Your task to perform on an android device: change the clock style Image 0: 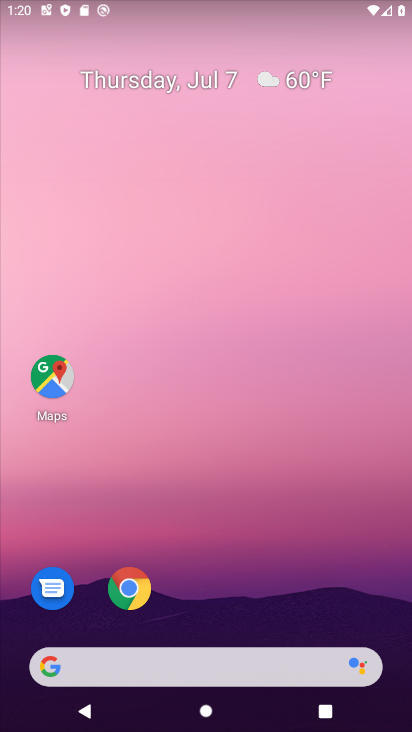
Step 0: drag from (264, 623) to (276, 182)
Your task to perform on an android device: change the clock style Image 1: 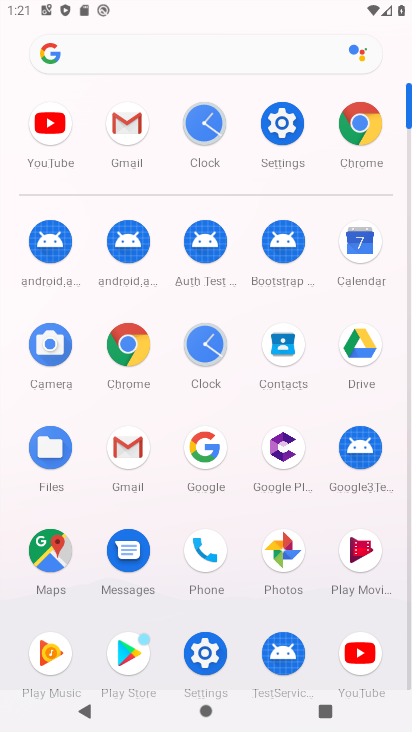
Step 1: click (191, 336)
Your task to perform on an android device: change the clock style Image 2: 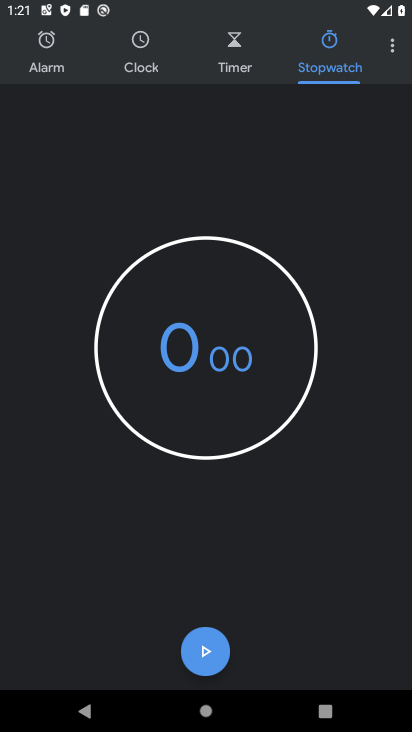
Step 2: click (393, 33)
Your task to perform on an android device: change the clock style Image 3: 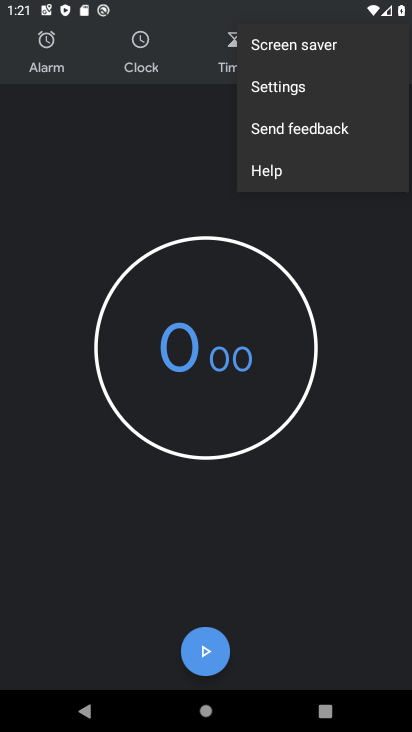
Step 3: click (311, 83)
Your task to perform on an android device: change the clock style Image 4: 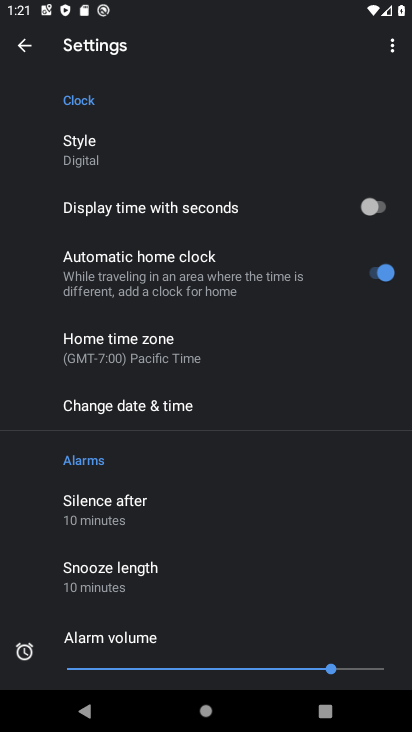
Step 4: click (97, 147)
Your task to perform on an android device: change the clock style Image 5: 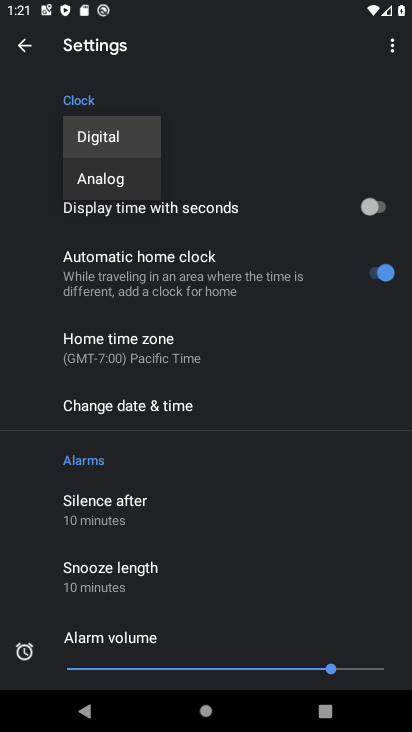
Step 5: click (132, 165)
Your task to perform on an android device: change the clock style Image 6: 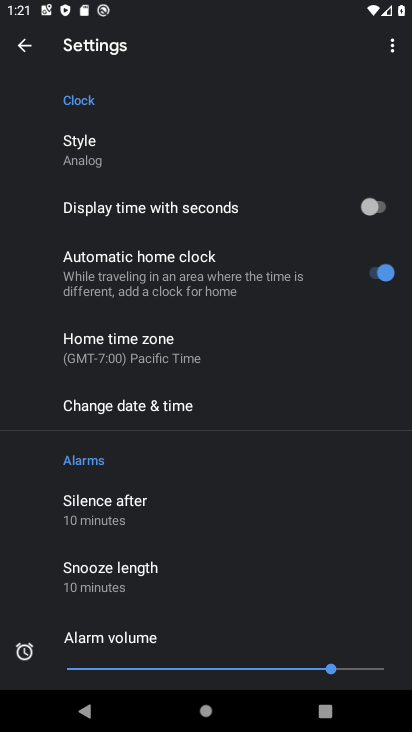
Step 6: task complete